Your task to perform on an android device: Show me popular videos on Youtube Image 0: 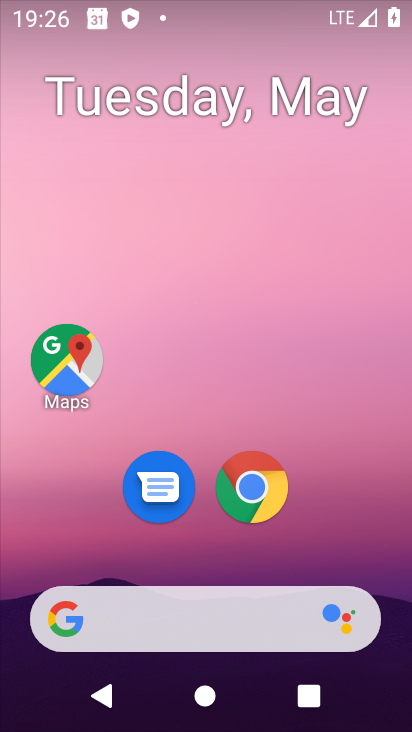
Step 0: drag from (357, 517) to (270, 95)
Your task to perform on an android device: Show me popular videos on Youtube Image 1: 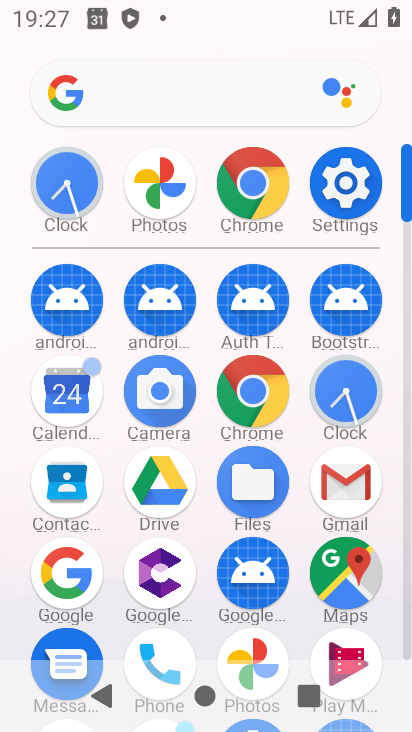
Step 1: drag from (201, 611) to (201, 92)
Your task to perform on an android device: Show me popular videos on Youtube Image 2: 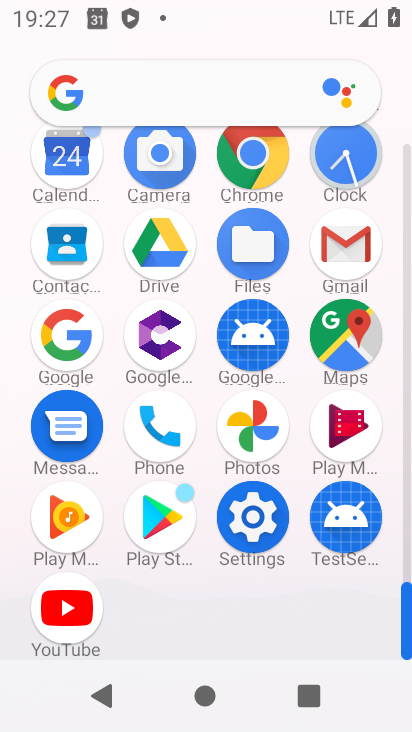
Step 2: click (72, 606)
Your task to perform on an android device: Show me popular videos on Youtube Image 3: 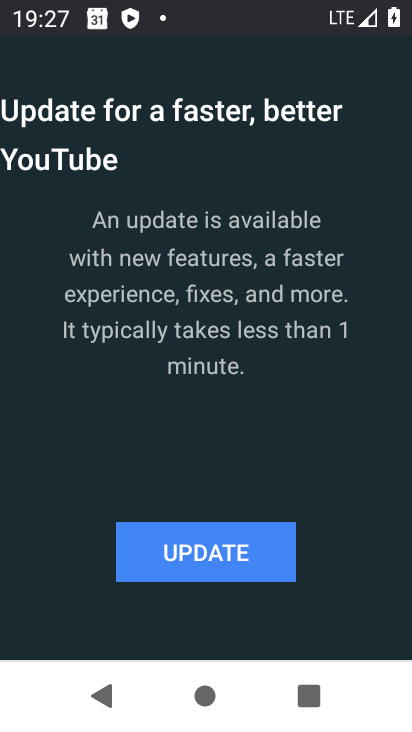
Step 3: click (235, 545)
Your task to perform on an android device: Show me popular videos on Youtube Image 4: 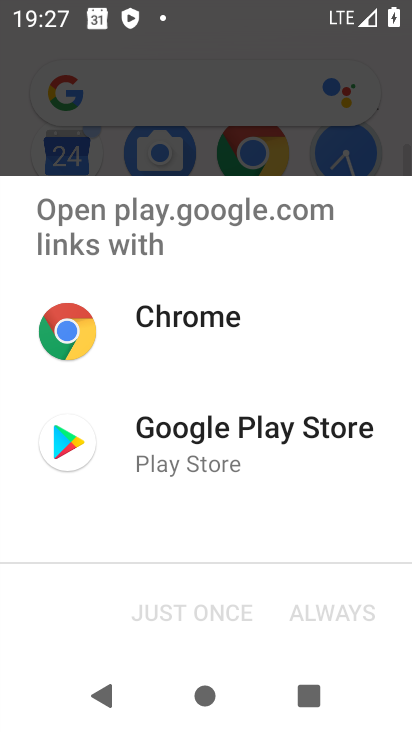
Step 4: click (194, 423)
Your task to perform on an android device: Show me popular videos on Youtube Image 5: 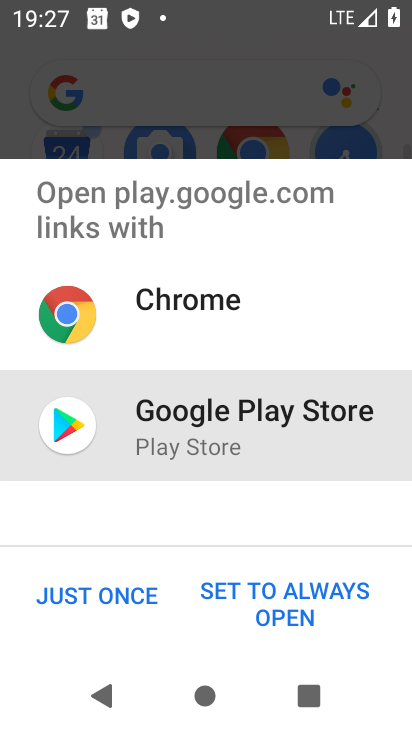
Step 5: click (125, 583)
Your task to perform on an android device: Show me popular videos on Youtube Image 6: 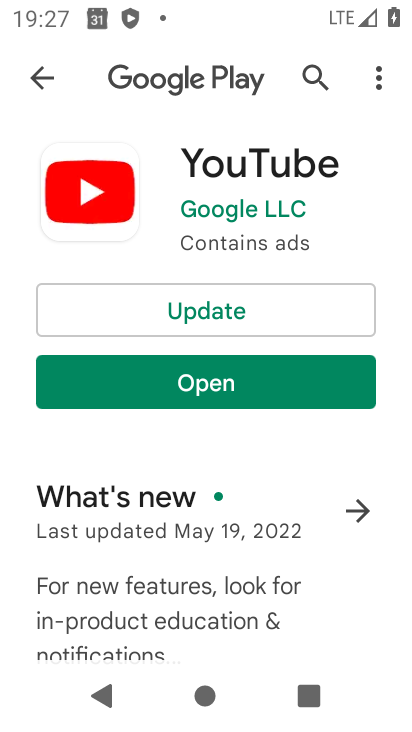
Step 6: click (220, 311)
Your task to perform on an android device: Show me popular videos on Youtube Image 7: 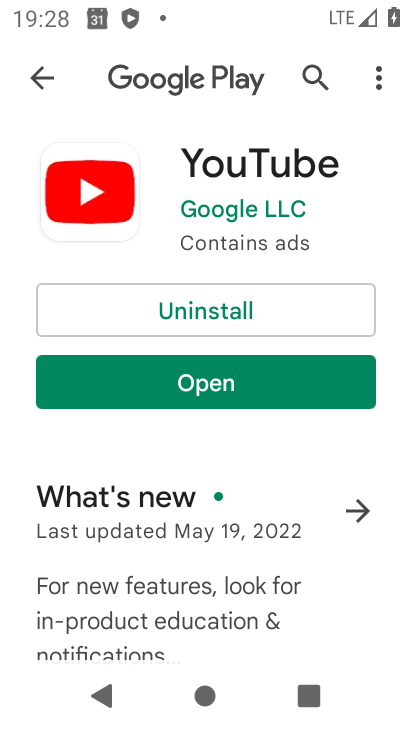
Step 7: click (200, 379)
Your task to perform on an android device: Show me popular videos on Youtube Image 8: 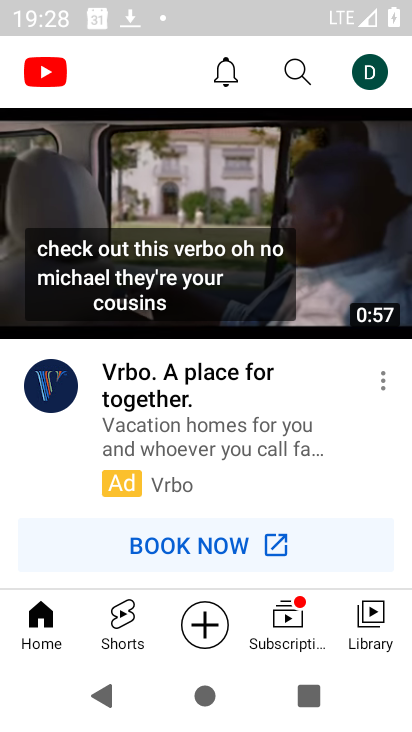
Step 8: click (112, 619)
Your task to perform on an android device: Show me popular videos on Youtube Image 9: 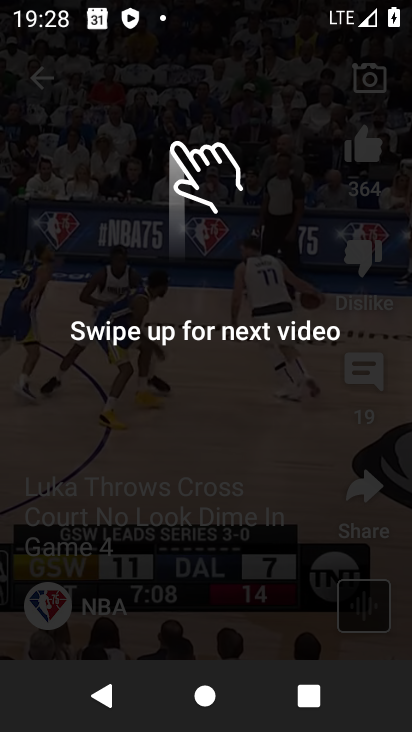
Step 9: task complete